Your task to perform on an android device: Show me recent news Image 0: 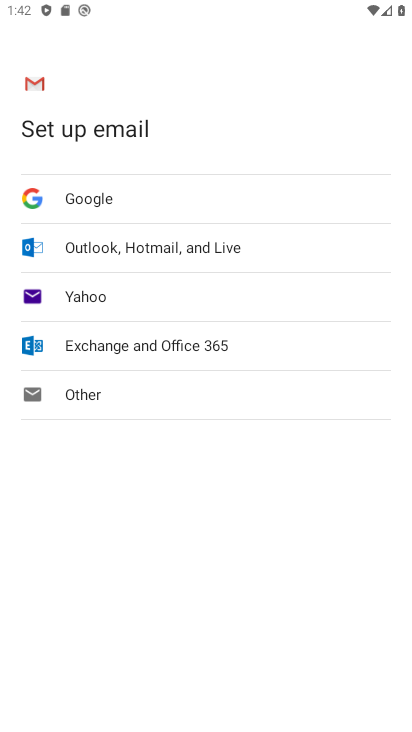
Step 0: press back button
Your task to perform on an android device: Show me recent news Image 1: 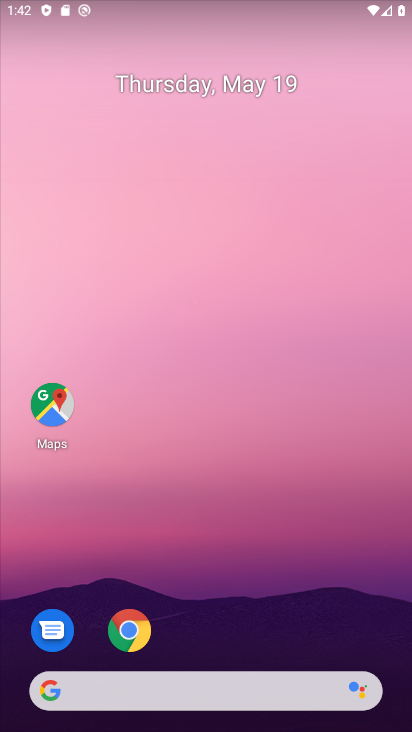
Step 1: drag from (241, 392) to (19, 146)
Your task to perform on an android device: Show me recent news Image 2: 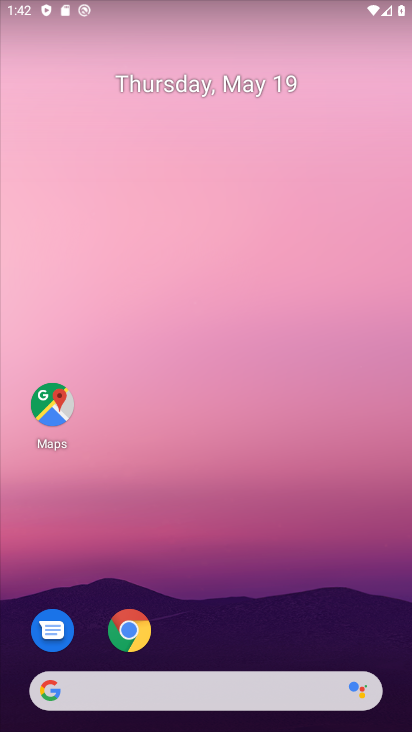
Step 2: click (133, 634)
Your task to perform on an android device: Show me recent news Image 3: 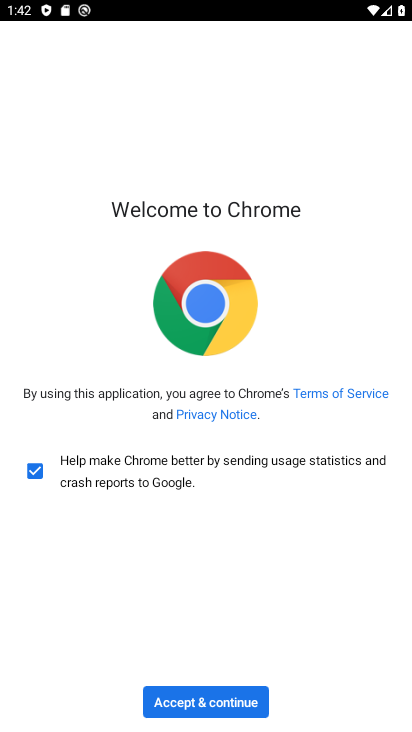
Step 3: click (216, 708)
Your task to perform on an android device: Show me recent news Image 4: 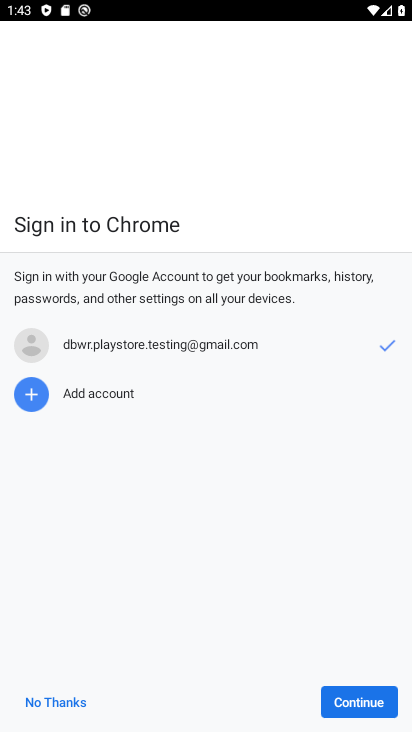
Step 4: click (378, 694)
Your task to perform on an android device: Show me recent news Image 5: 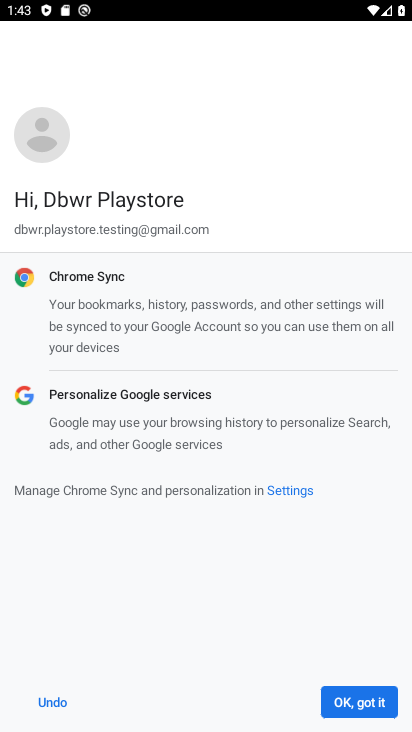
Step 5: click (354, 701)
Your task to perform on an android device: Show me recent news Image 6: 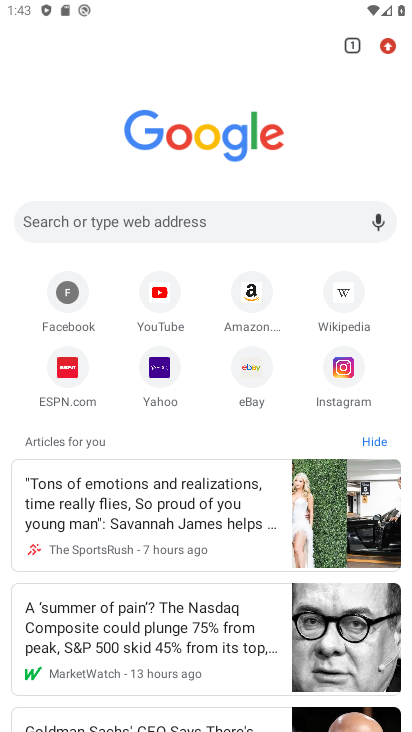
Step 6: click (189, 223)
Your task to perform on an android device: Show me recent news Image 7: 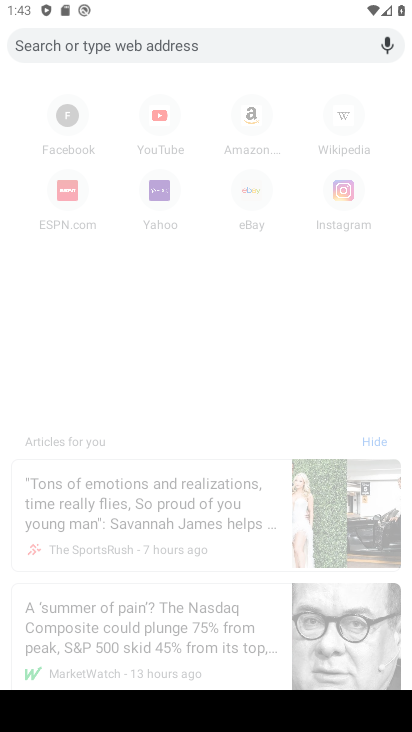
Step 7: type "Show me recent news"
Your task to perform on an android device: Show me recent news Image 8: 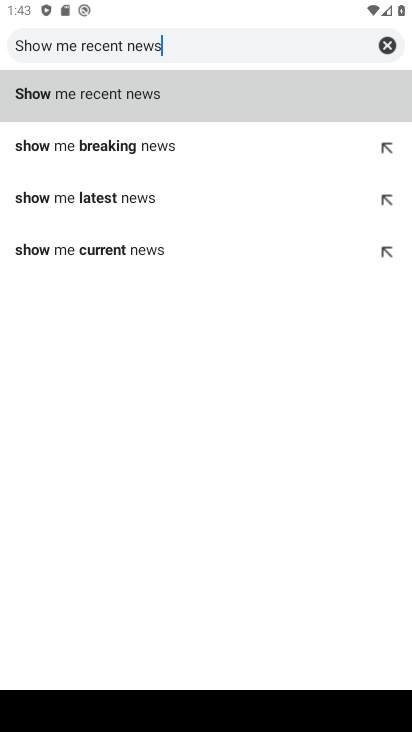
Step 8: type ""
Your task to perform on an android device: Show me recent news Image 9: 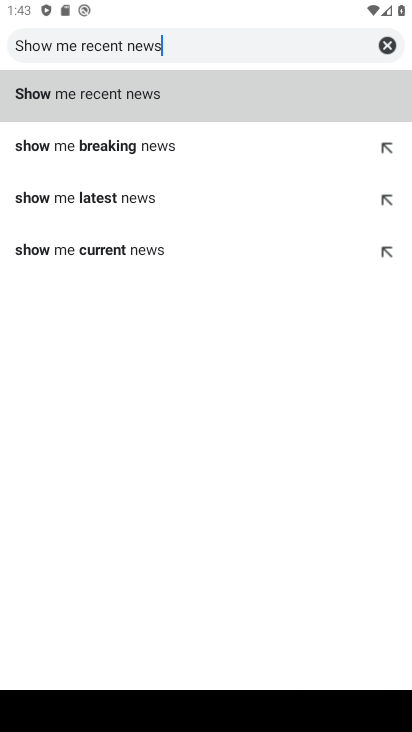
Step 9: click (168, 97)
Your task to perform on an android device: Show me recent news Image 10: 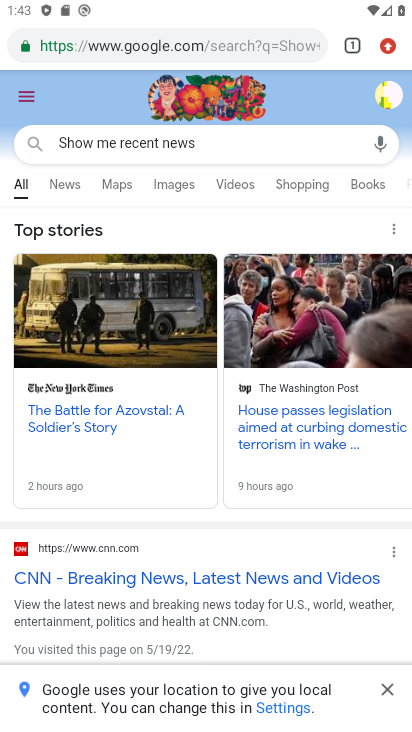
Step 10: task complete